Your task to perform on an android device: change the clock display to analog Image 0: 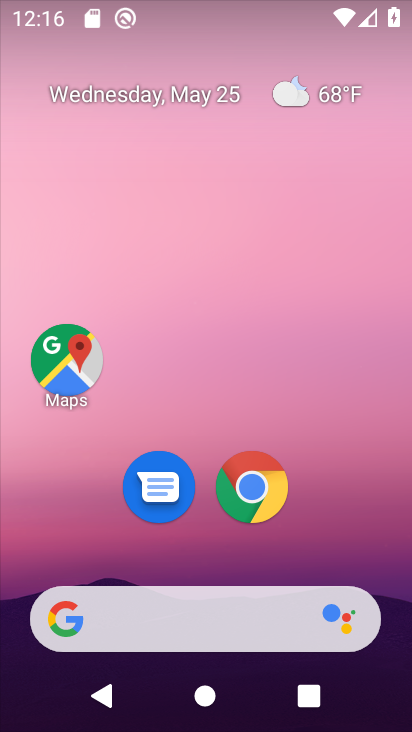
Step 0: drag from (217, 577) to (241, 97)
Your task to perform on an android device: change the clock display to analog Image 1: 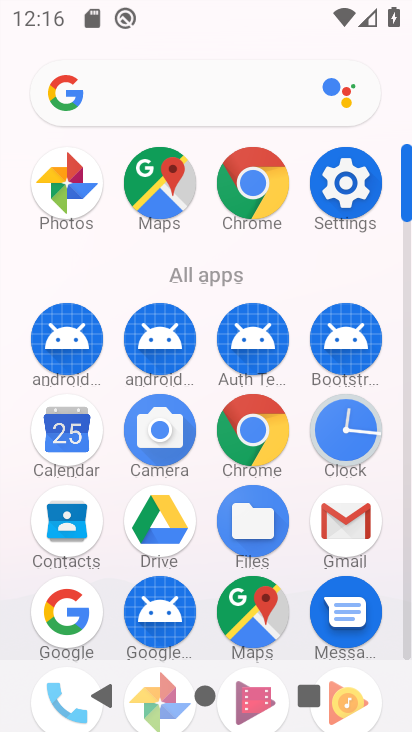
Step 1: click (333, 431)
Your task to perform on an android device: change the clock display to analog Image 2: 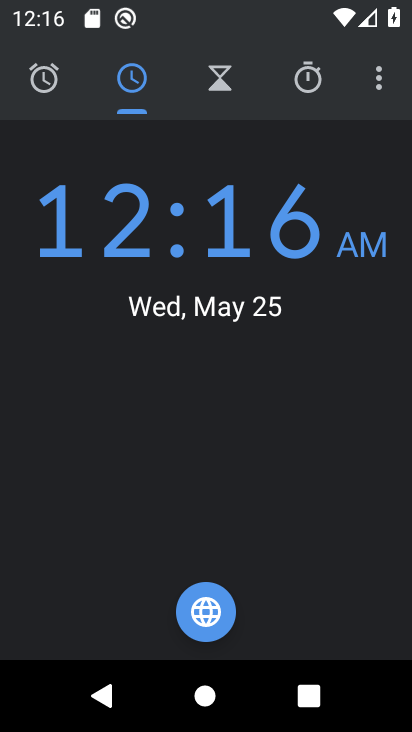
Step 2: click (362, 80)
Your task to perform on an android device: change the clock display to analog Image 3: 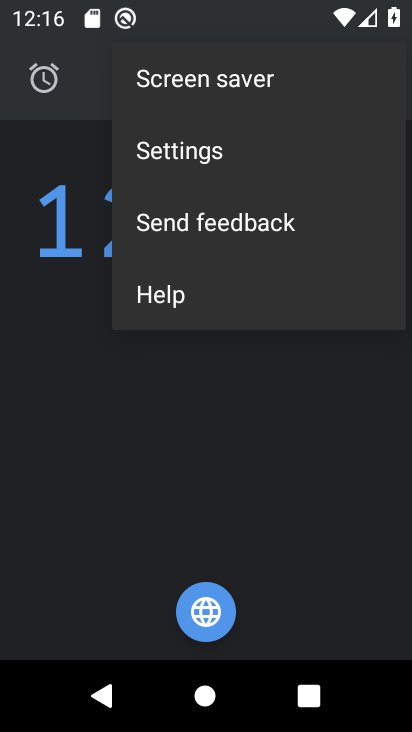
Step 3: click (120, 158)
Your task to perform on an android device: change the clock display to analog Image 4: 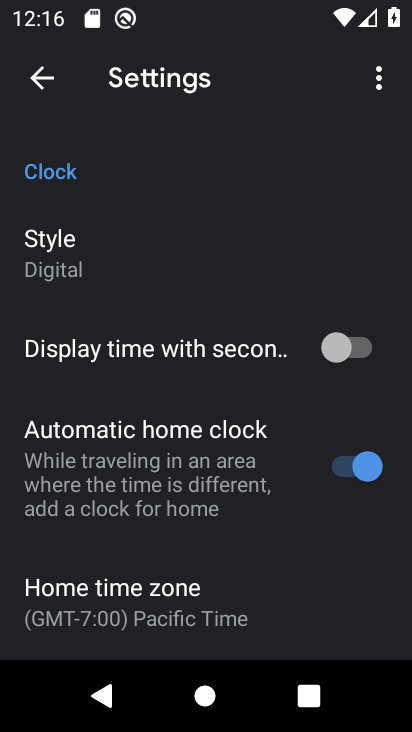
Step 4: click (99, 253)
Your task to perform on an android device: change the clock display to analog Image 5: 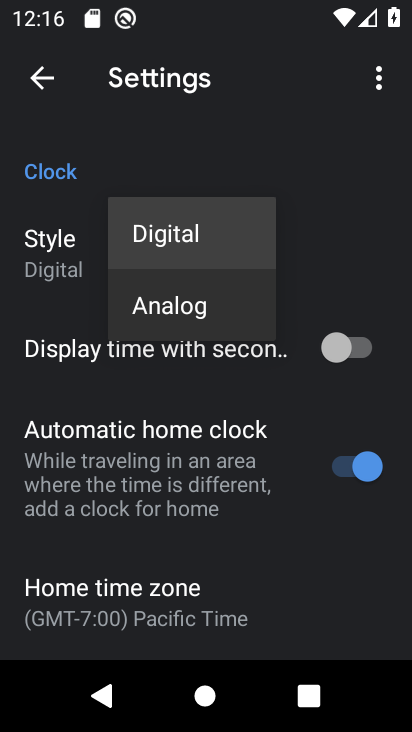
Step 5: click (167, 298)
Your task to perform on an android device: change the clock display to analog Image 6: 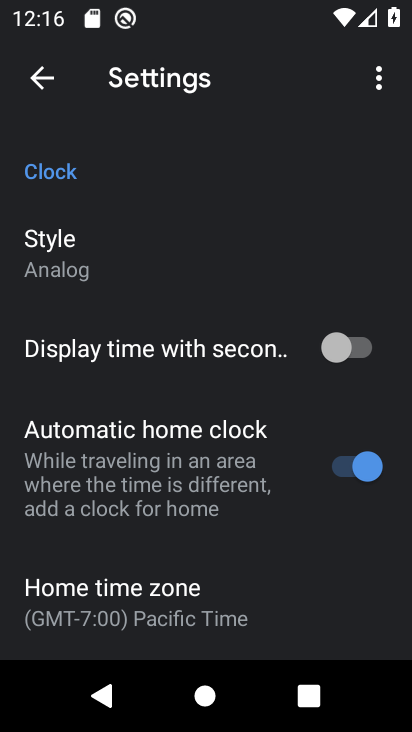
Step 6: task complete